Your task to perform on an android device: move an email to a new category in the gmail app Image 0: 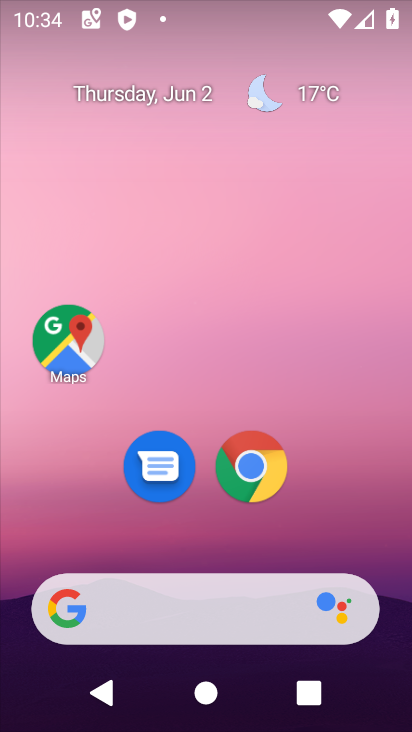
Step 0: drag from (290, 480) to (294, 254)
Your task to perform on an android device: move an email to a new category in the gmail app Image 1: 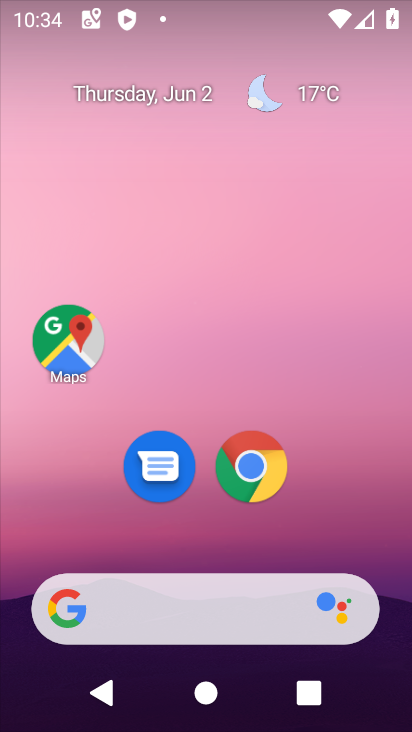
Step 1: drag from (306, 496) to (302, 198)
Your task to perform on an android device: move an email to a new category in the gmail app Image 2: 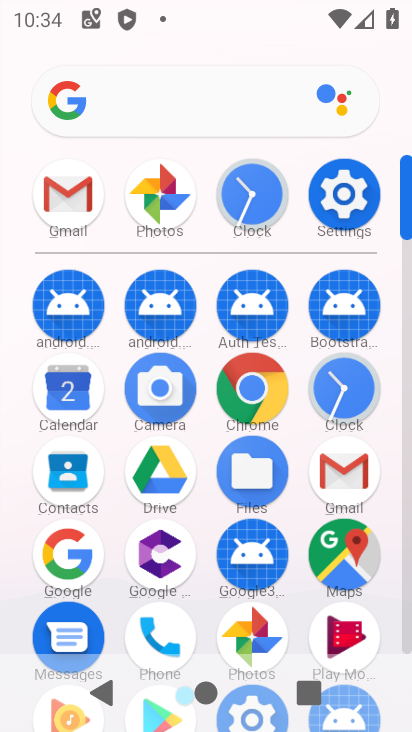
Step 2: click (343, 460)
Your task to perform on an android device: move an email to a new category in the gmail app Image 3: 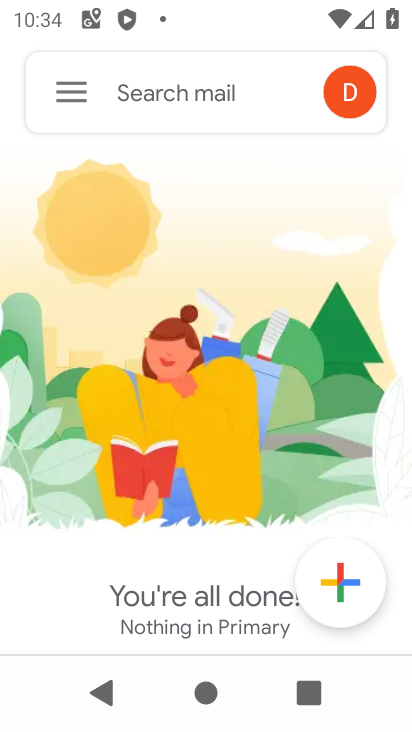
Step 3: click (58, 101)
Your task to perform on an android device: move an email to a new category in the gmail app Image 4: 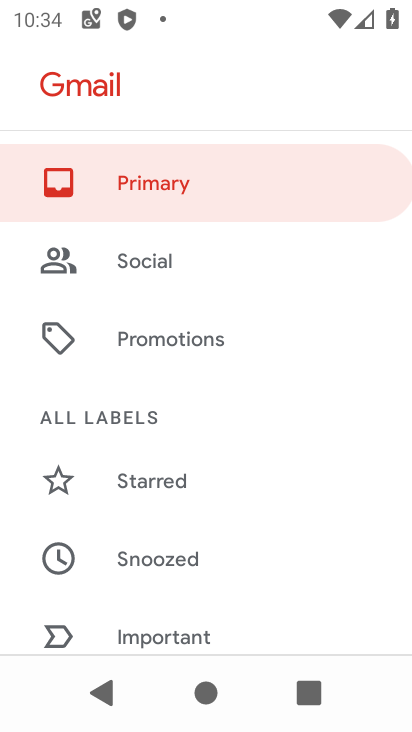
Step 4: drag from (192, 581) to (245, 210)
Your task to perform on an android device: move an email to a new category in the gmail app Image 5: 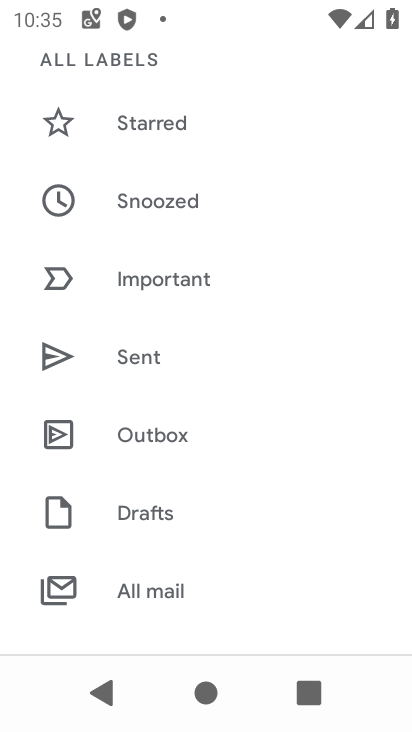
Step 5: drag from (162, 560) to (214, 178)
Your task to perform on an android device: move an email to a new category in the gmail app Image 6: 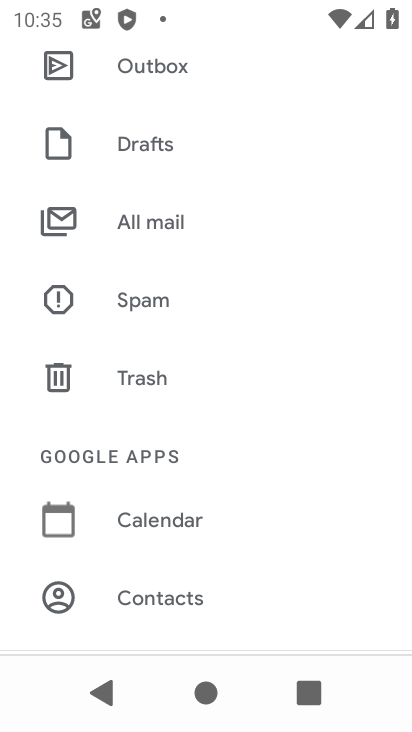
Step 6: drag from (153, 604) to (197, 407)
Your task to perform on an android device: move an email to a new category in the gmail app Image 7: 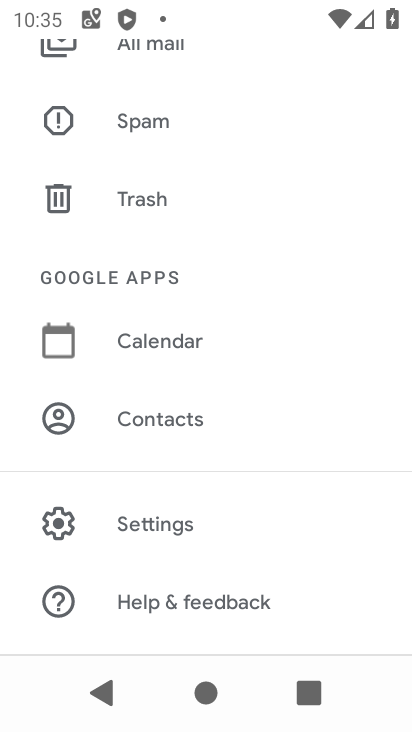
Step 7: click (147, 528)
Your task to perform on an android device: move an email to a new category in the gmail app Image 8: 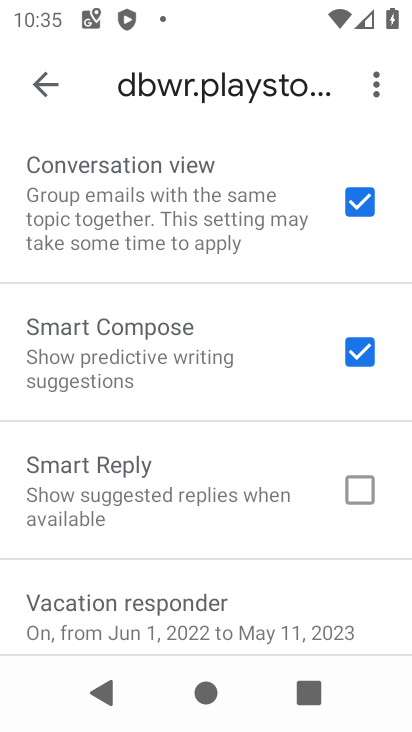
Step 8: task complete